Your task to perform on an android device: Check the news Image 0: 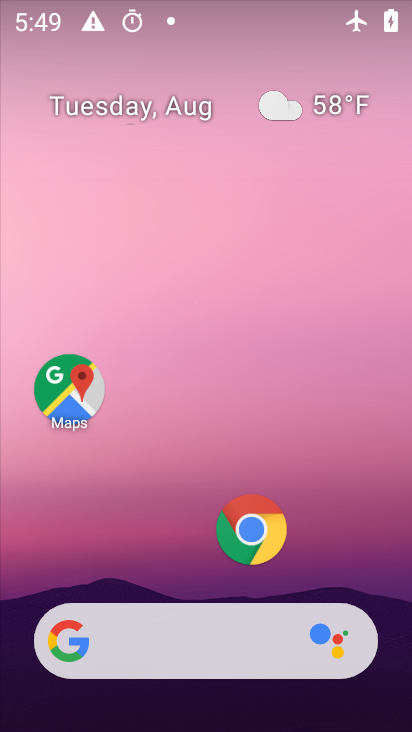
Step 0: drag from (196, 527) to (206, 206)
Your task to perform on an android device: Check the news Image 1: 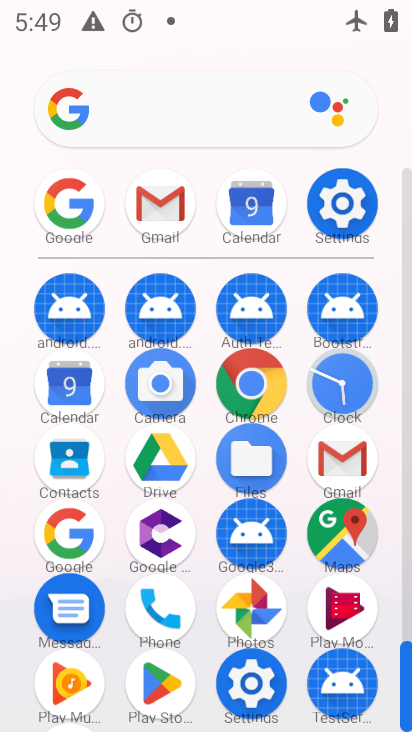
Step 1: click (86, 209)
Your task to perform on an android device: Check the news Image 2: 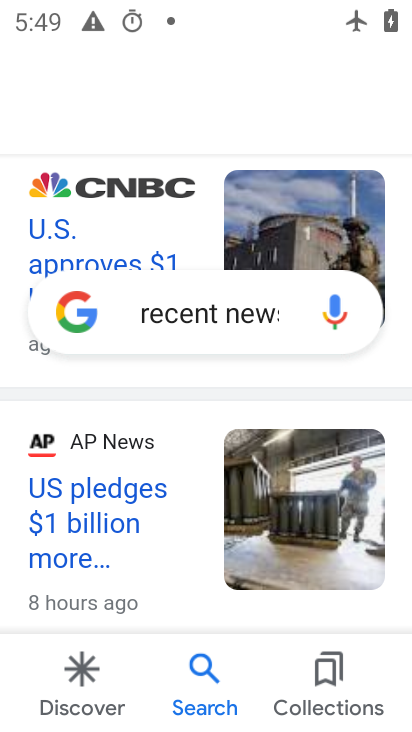
Step 2: drag from (182, 392) to (207, 594)
Your task to perform on an android device: Check the news Image 3: 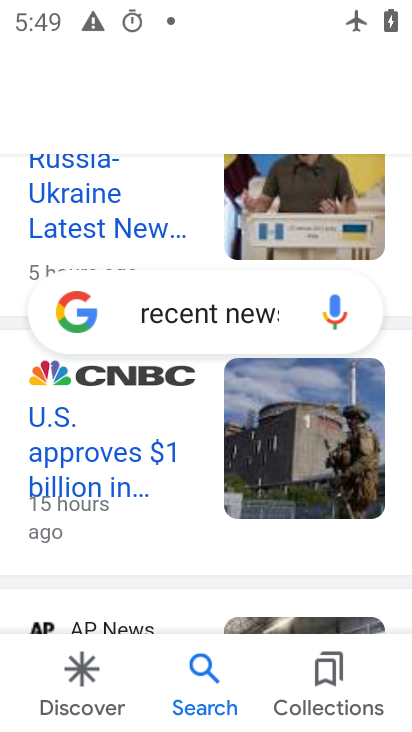
Step 3: click (225, 316)
Your task to perform on an android device: Check the news Image 4: 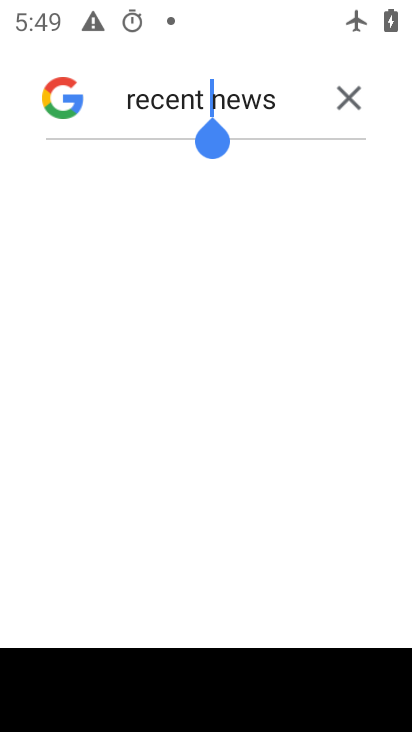
Step 4: click (343, 102)
Your task to perform on an android device: Check the news Image 5: 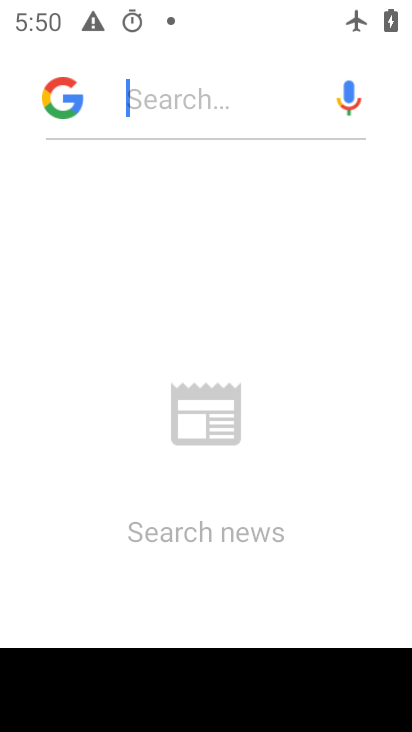
Step 5: click (184, 100)
Your task to perform on an android device: Check the news Image 6: 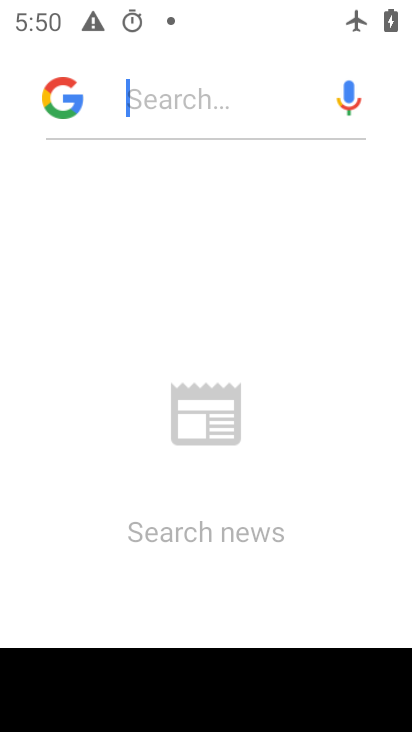
Step 6: type "news"
Your task to perform on an android device: Check the news Image 7: 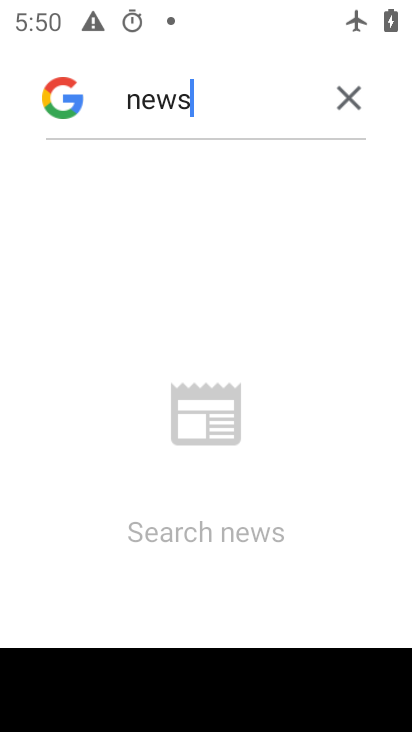
Step 7: type ""
Your task to perform on an android device: Check the news Image 8: 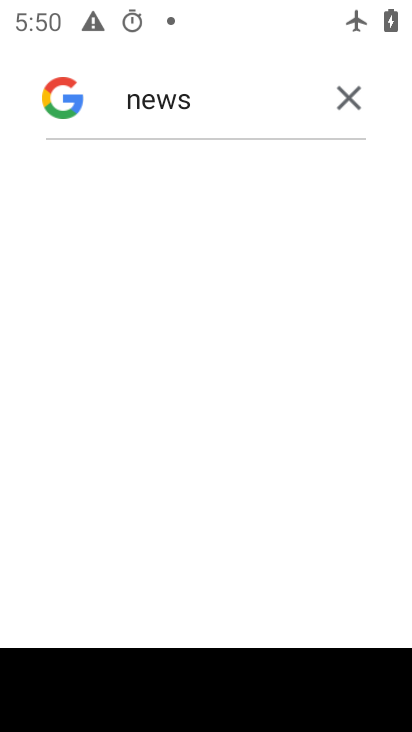
Step 8: drag from (179, 310) to (209, 506)
Your task to perform on an android device: Check the news Image 9: 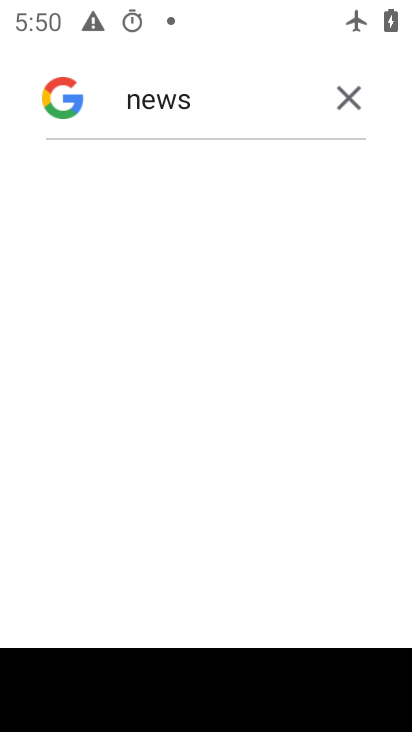
Step 9: click (220, 102)
Your task to perform on an android device: Check the news Image 10: 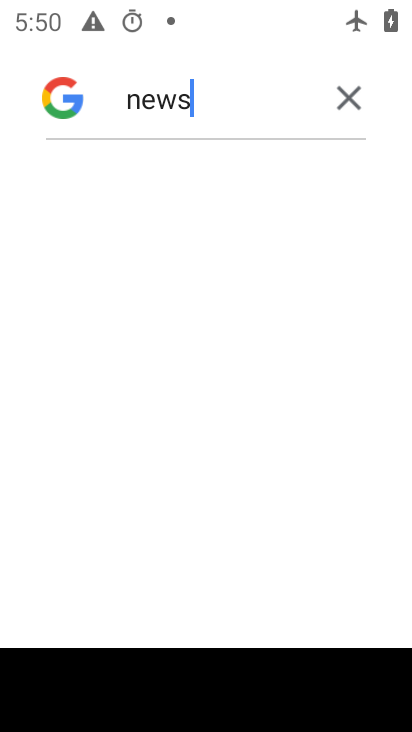
Step 10: click (149, 122)
Your task to perform on an android device: Check the news Image 11: 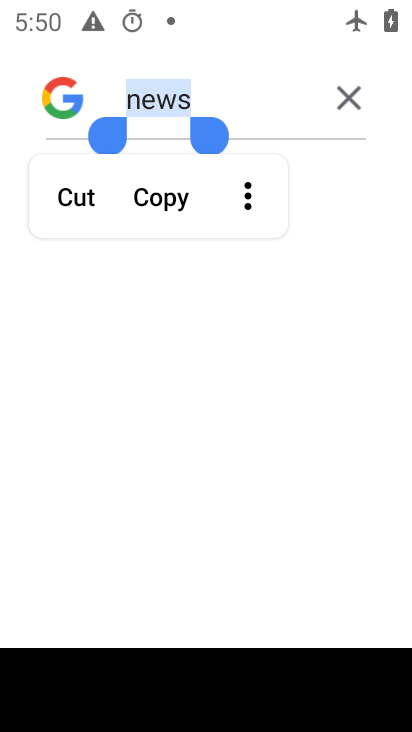
Step 11: click (261, 97)
Your task to perform on an android device: Check the news Image 12: 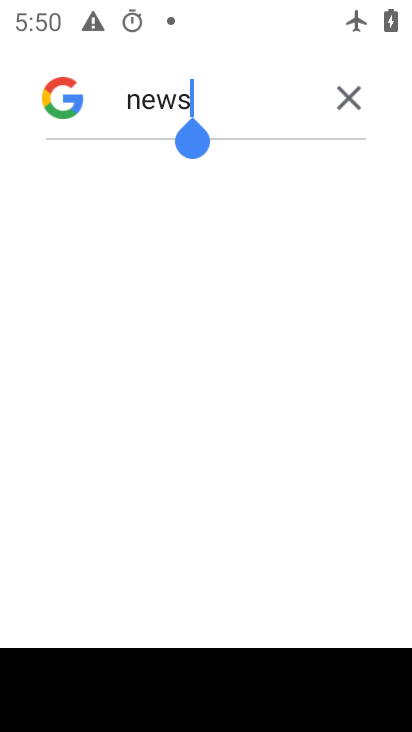
Step 12: task complete